Your task to perform on an android device: Go to Google maps Image 0: 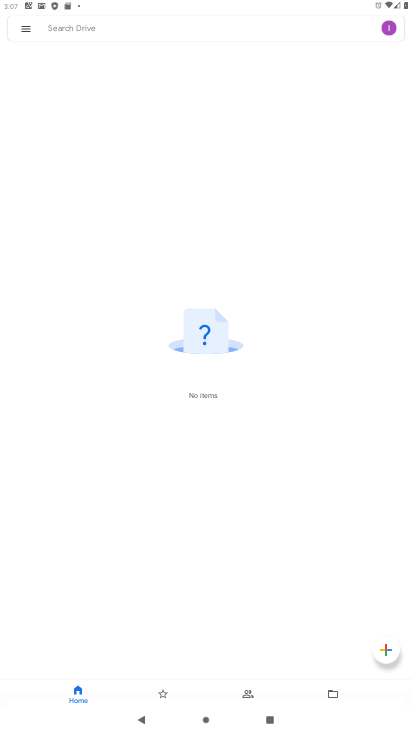
Step 0: press home button
Your task to perform on an android device: Go to Google maps Image 1: 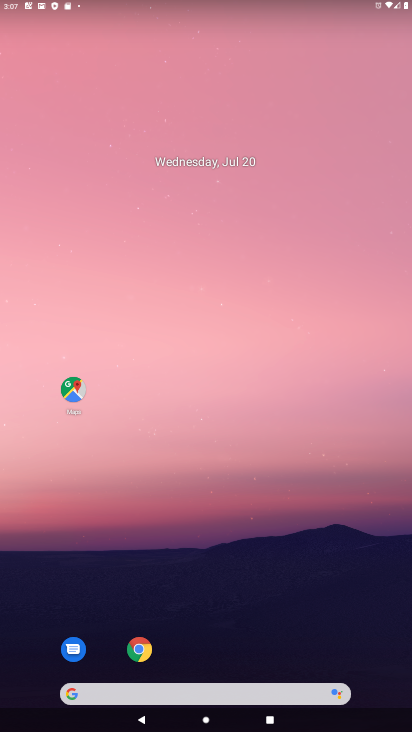
Step 1: click (71, 388)
Your task to perform on an android device: Go to Google maps Image 2: 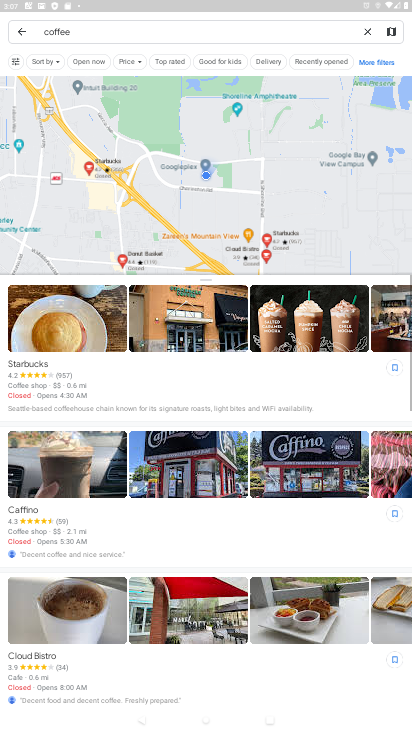
Step 2: task complete